Your task to perform on an android device: Open Android settings Image 0: 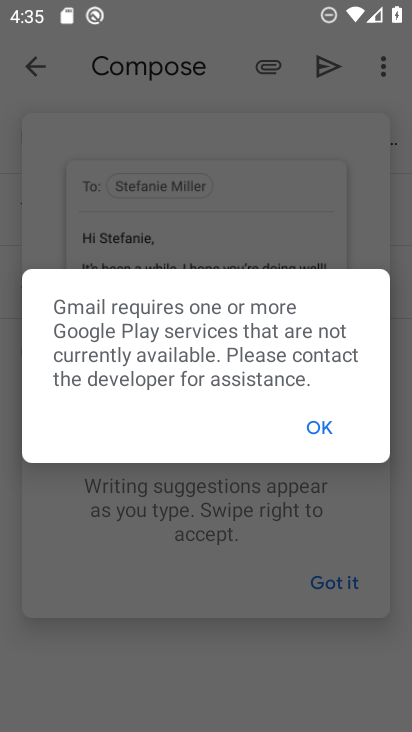
Step 0: task complete